Your task to perform on an android device: turn notification dots on Image 0: 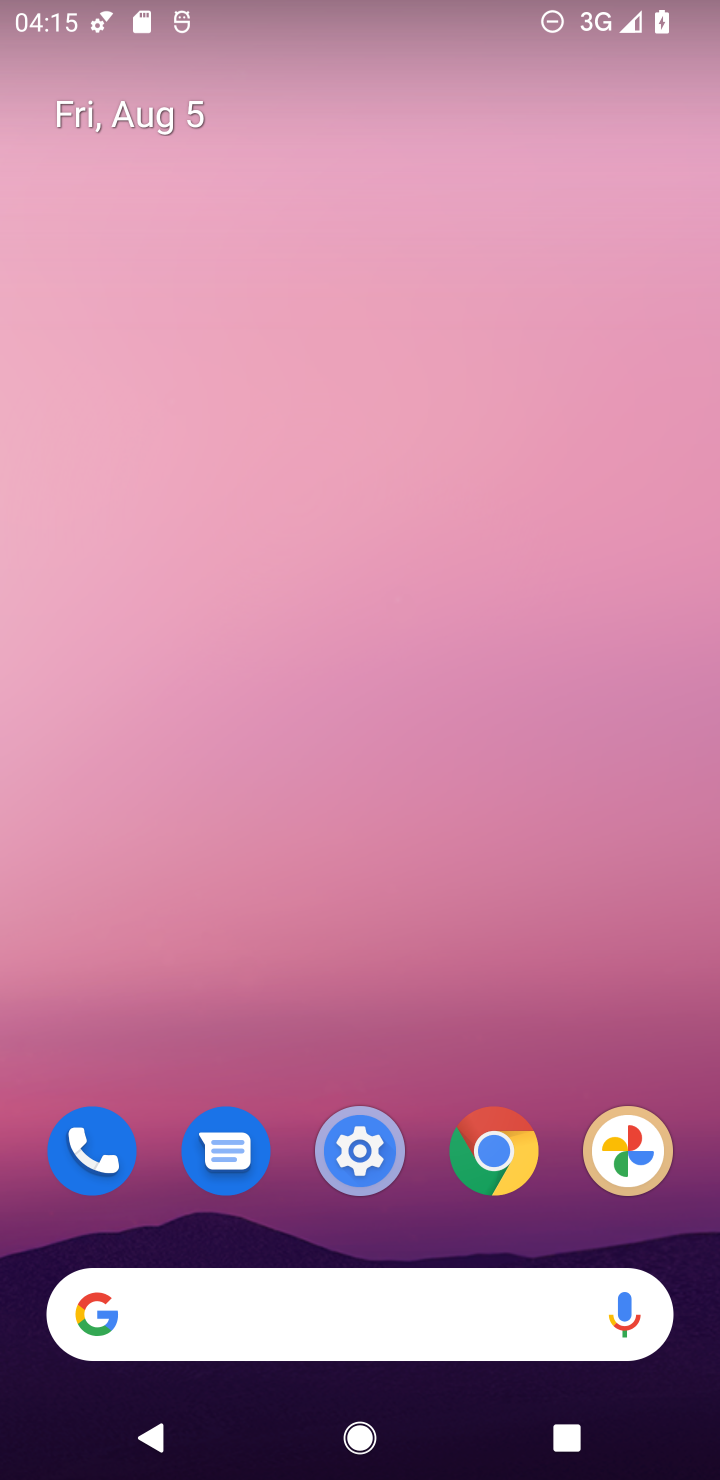
Step 0: click (359, 1141)
Your task to perform on an android device: turn notification dots on Image 1: 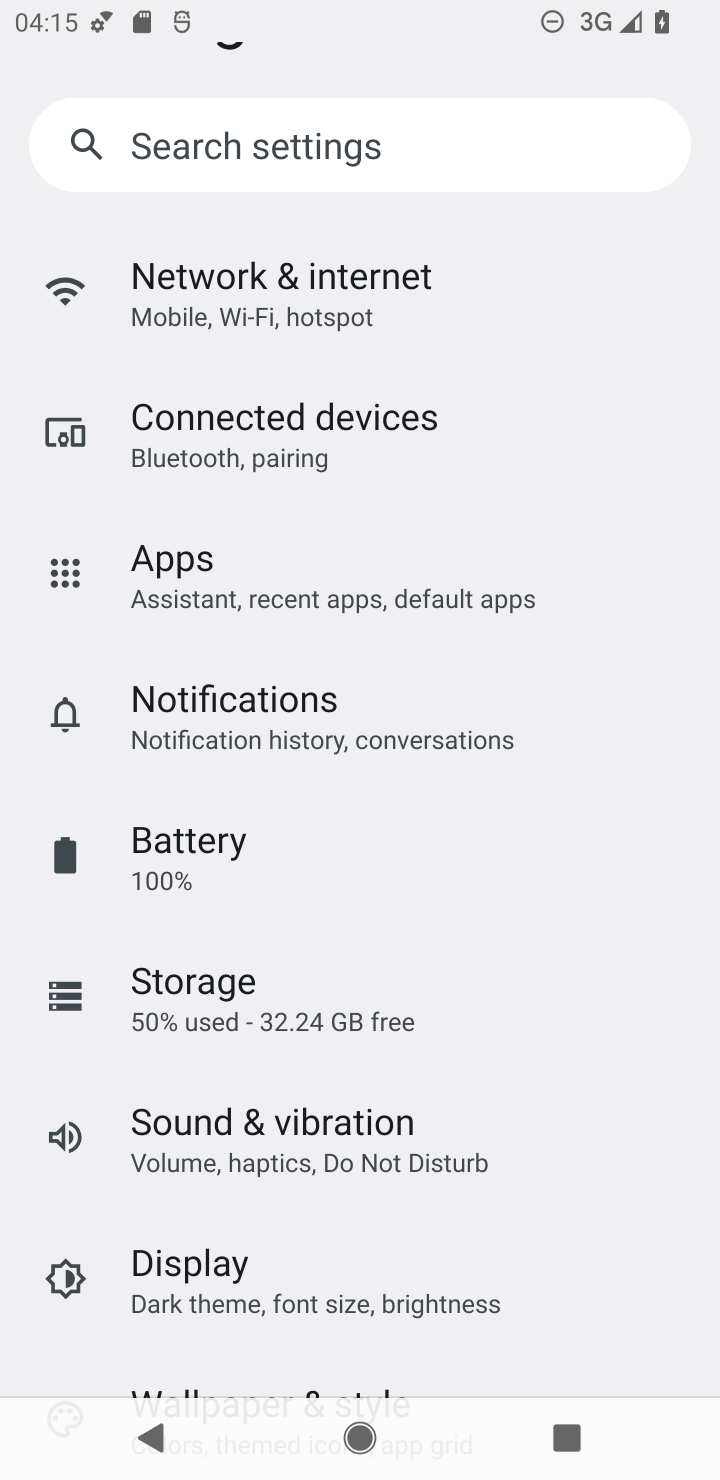
Step 1: click (402, 714)
Your task to perform on an android device: turn notification dots on Image 2: 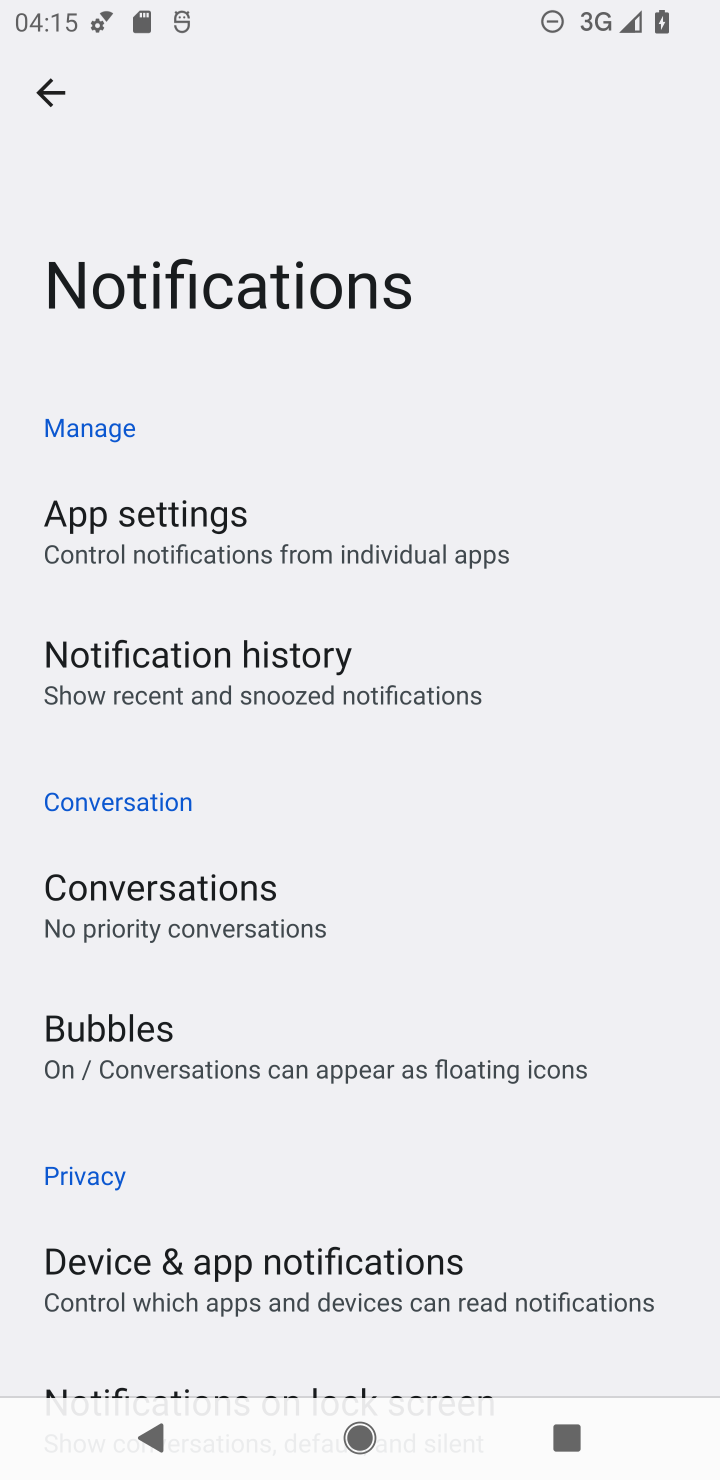
Step 2: task complete